Your task to perform on an android device: check out phone information Image 0: 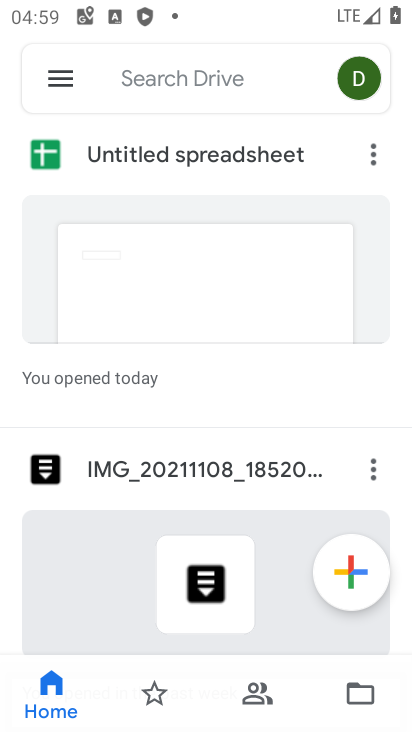
Step 0: press home button
Your task to perform on an android device: check out phone information Image 1: 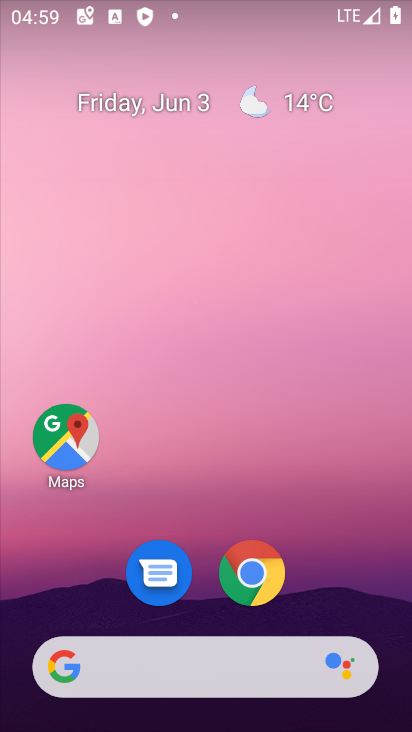
Step 1: drag from (321, 607) to (228, 132)
Your task to perform on an android device: check out phone information Image 2: 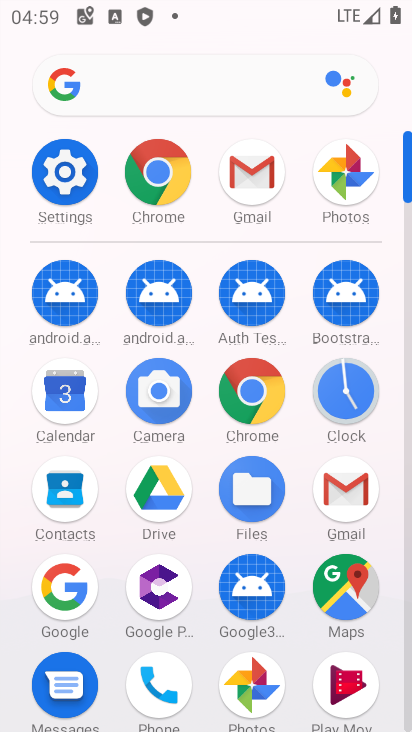
Step 2: click (58, 192)
Your task to perform on an android device: check out phone information Image 3: 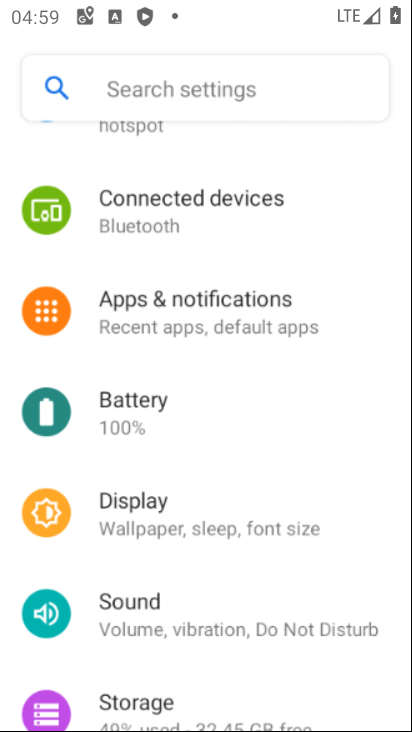
Step 3: drag from (286, 330) to (270, 251)
Your task to perform on an android device: check out phone information Image 4: 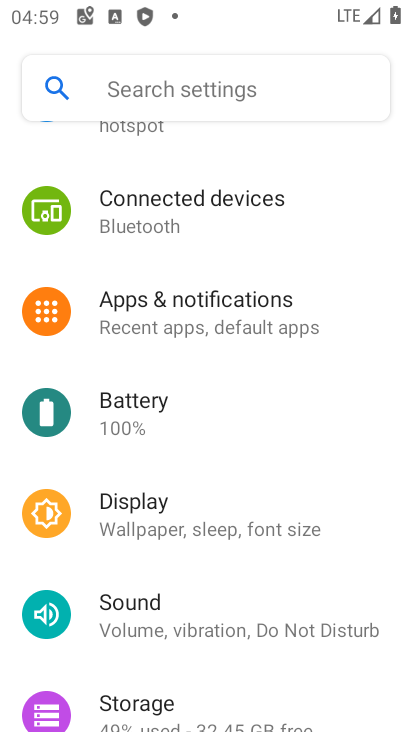
Step 4: drag from (218, 628) to (263, 225)
Your task to perform on an android device: check out phone information Image 5: 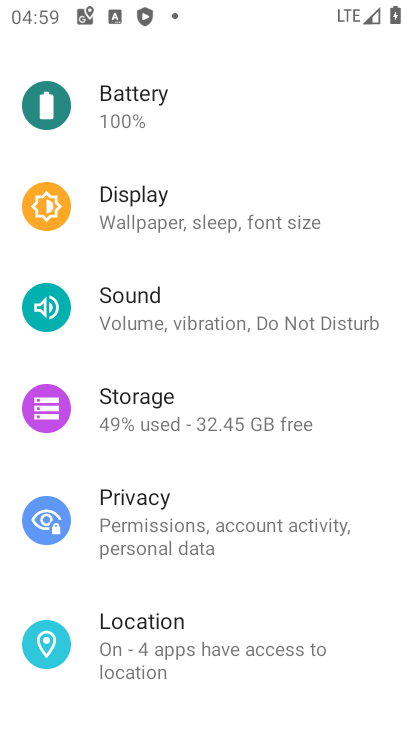
Step 5: drag from (214, 663) to (254, 469)
Your task to perform on an android device: check out phone information Image 6: 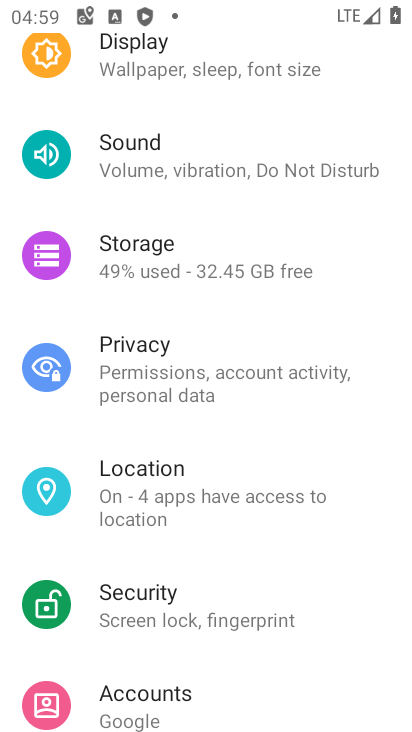
Step 6: drag from (263, 344) to (265, 293)
Your task to perform on an android device: check out phone information Image 7: 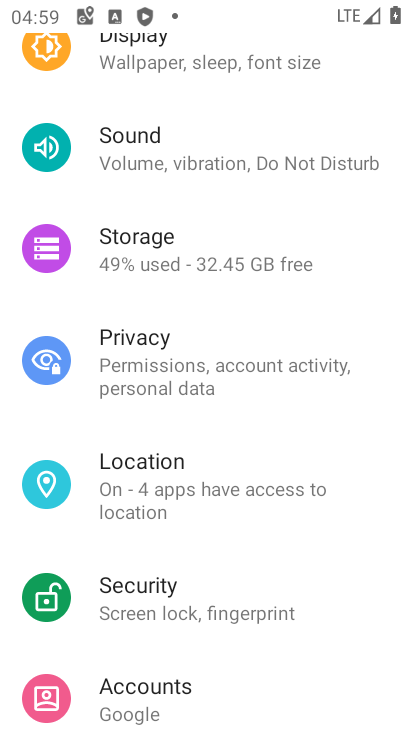
Step 7: drag from (238, 670) to (261, 467)
Your task to perform on an android device: check out phone information Image 8: 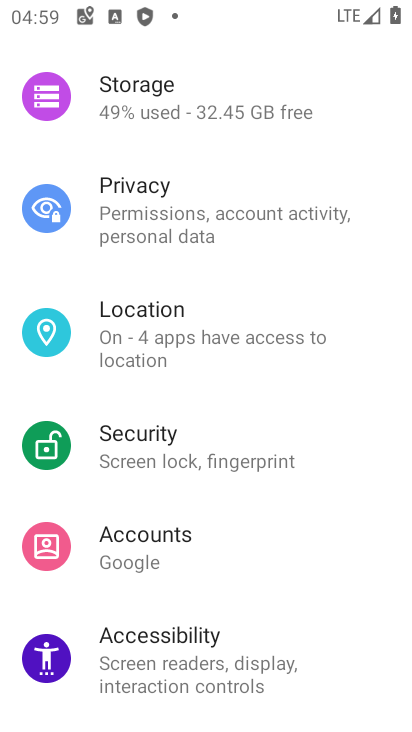
Step 8: drag from (284, 590) to (358, 243)
Your task to perform on an android device: check out phone information Image 9: 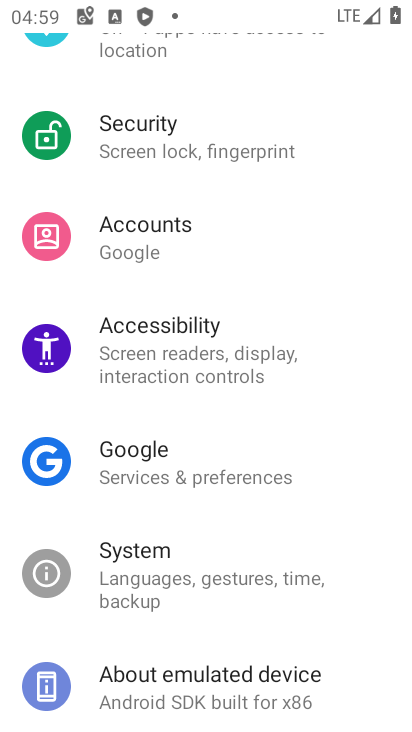
Step 9: click (253, 698)
Your task to perform on an android device: check out phone information Image 10: 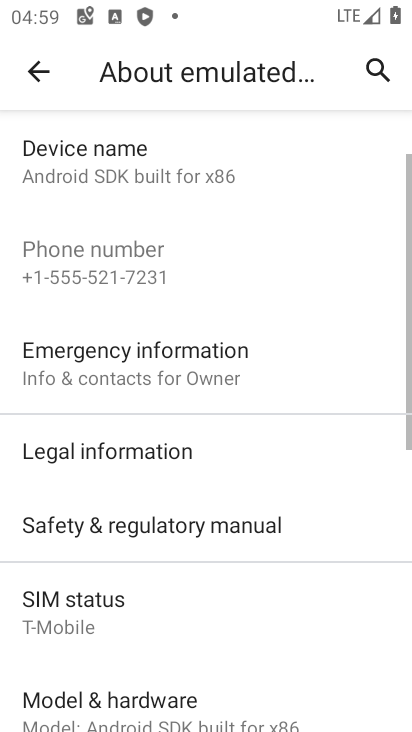
Step 10: task complete